Your task to perform on an android device: Clear the cart on amazon.com. Image 0: 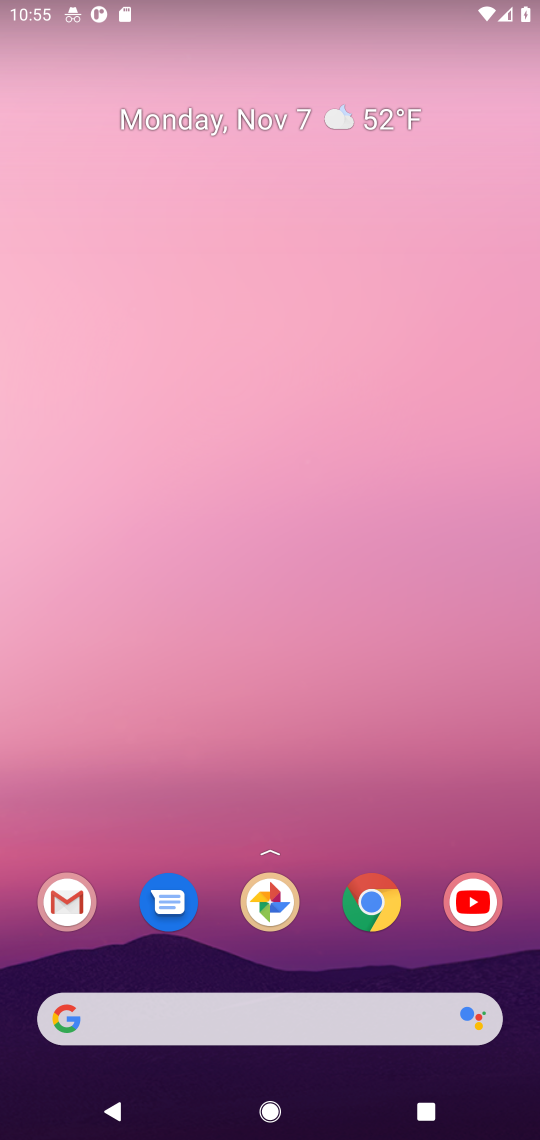
Step 0: click (368, 908)
Your task to perform on an android device: Clear the cart on amazon.com. Image 1: 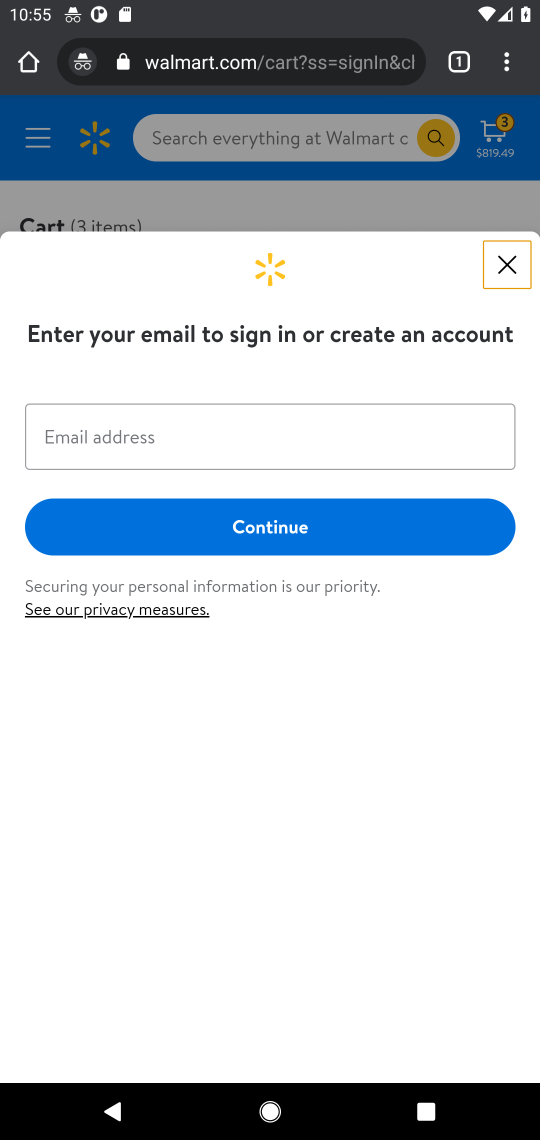
Step 1: click (277, 57)
Your task to perform on an android device: Clear the cart on amazon.com. Image 2: 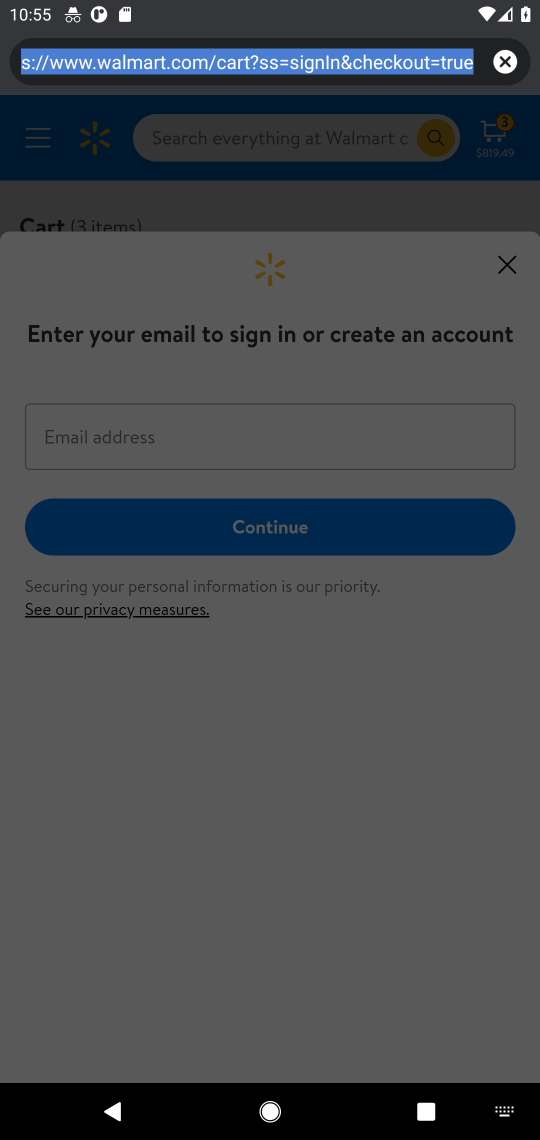
Step 2: type "amazon.com"
Your task to perform on an android device: Clear the cart on amazon.com. Image 3: 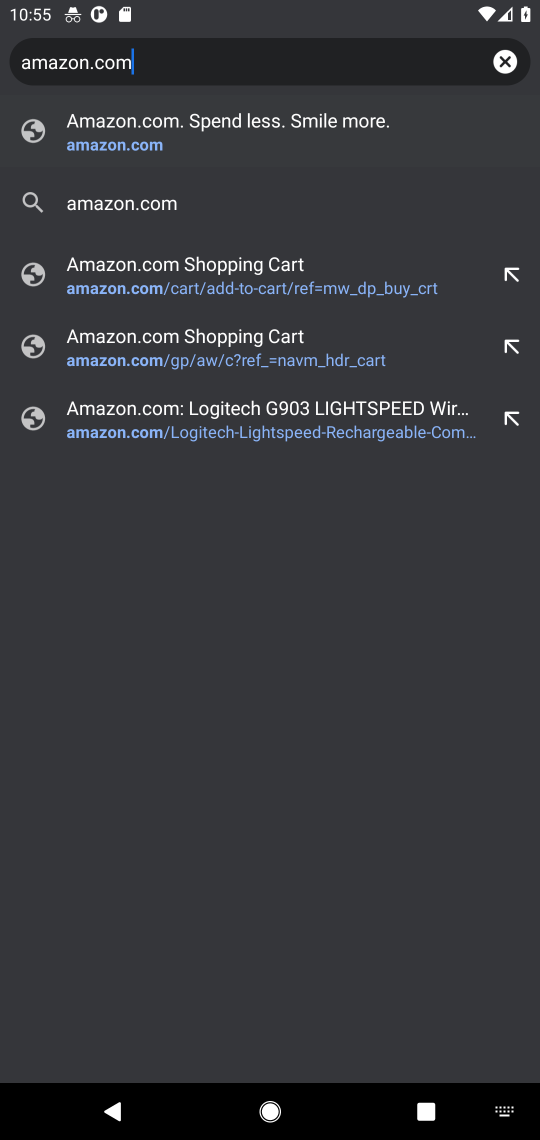
Step 3: click (135, 144)
Your task to perform on an android device: Clear the cart on amazon.com. Image 4: 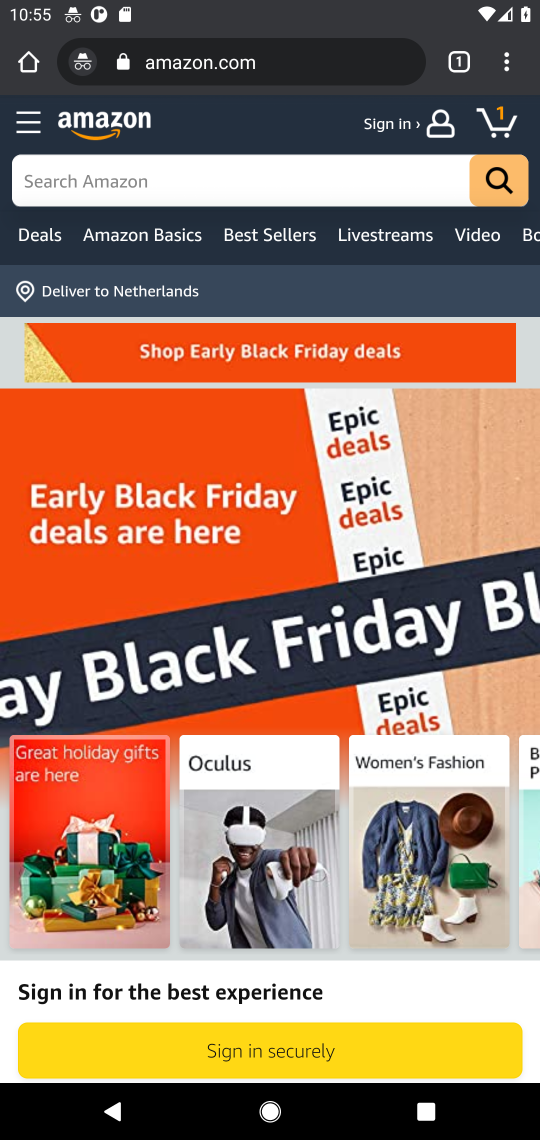
Step 4: click (501, 131)
Your task to perform on an android device: Clear the cart on amazon.com. Image 5: 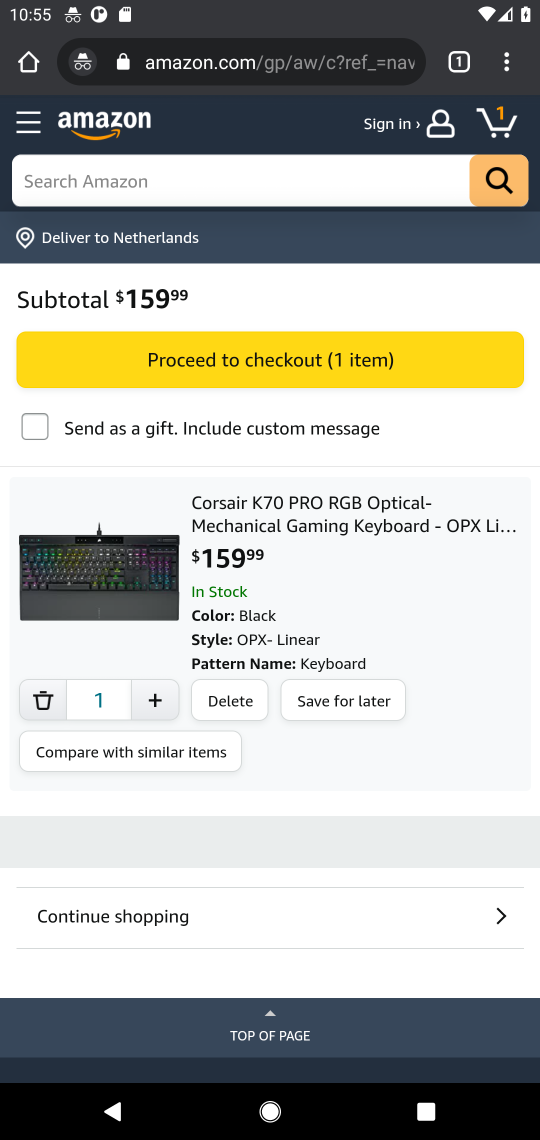
Step 5: click (238, 704)
Your task to perform on an android device: Clear the cart on amazon.com. Image 6: 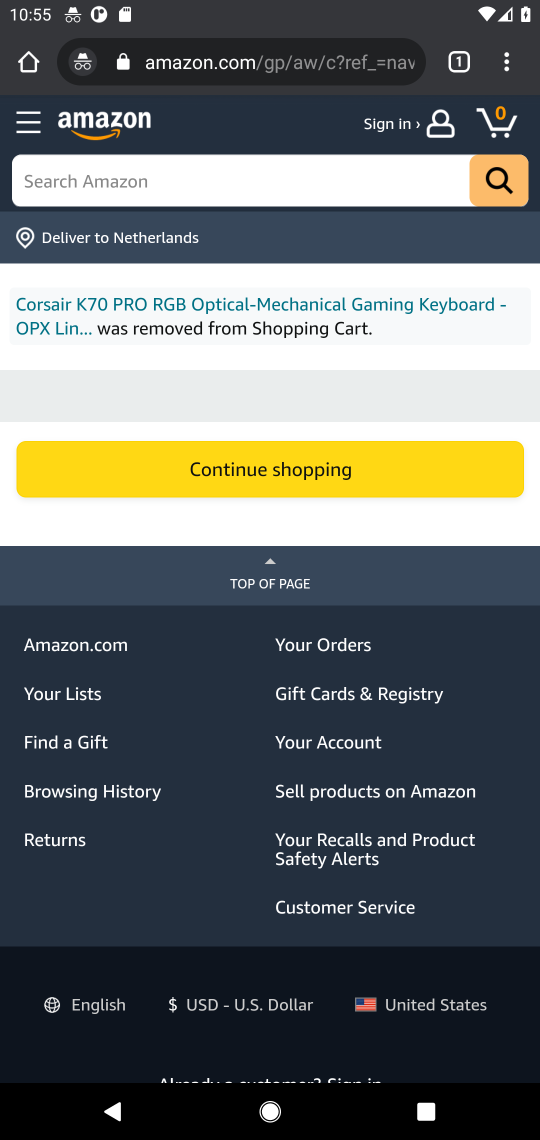
Step 6: task complete